Your task to perform on an android device: change notifications settings Image 0: 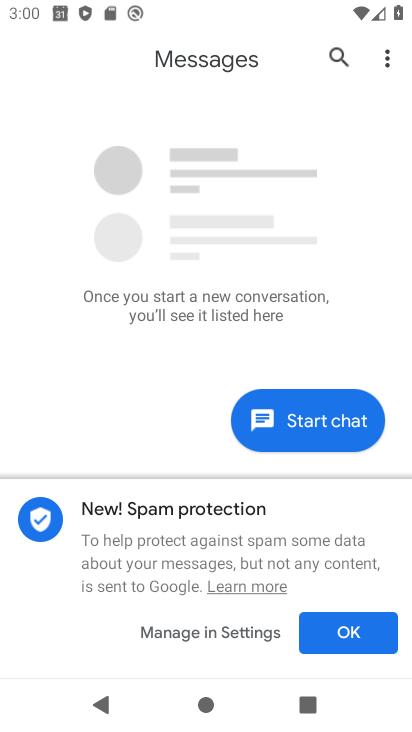
Step 0: press home button
Your task to perform on an android device: change notifications settings Image 1: 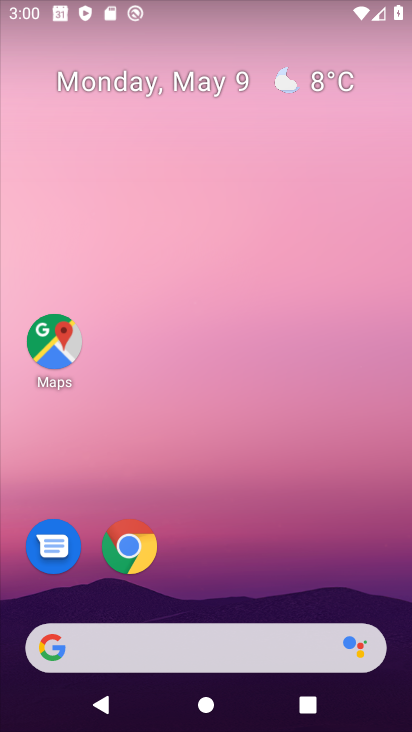
Step 1: drag from (269, 547) to (258, 17)
Your task to perform on an android device: change notifications settings Image 2: 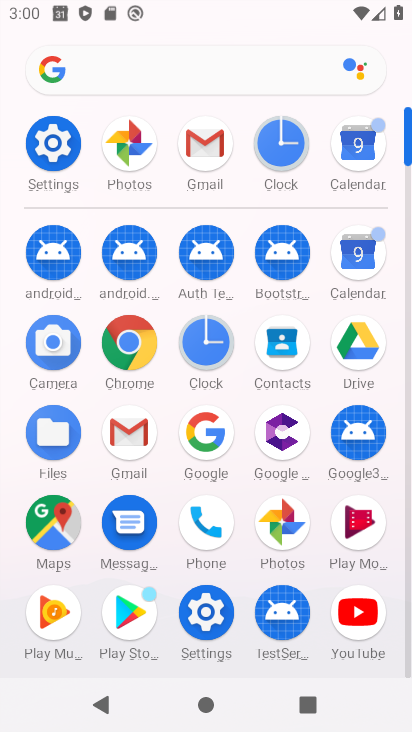
Step 2: click (59, 138)
Your task to perform on an android device: change notifications settings Image 3: 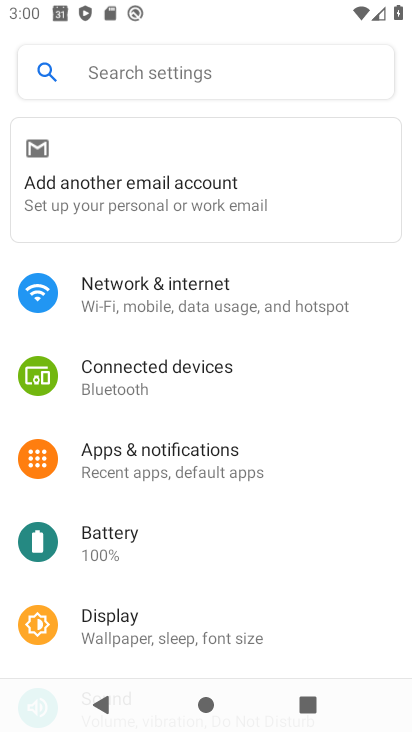
Step 3: click (213, 444)
Your task to perform on an android device: change notifications settings Image 4: 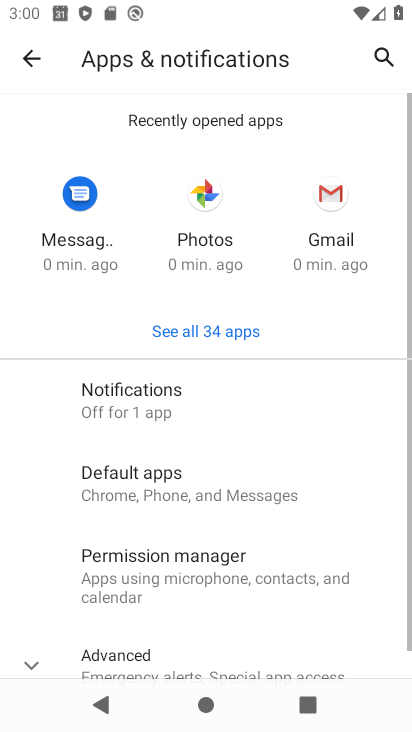
Step 4: click (139, 379)
Your task to perform on an android device: change notifications settings Image 5: 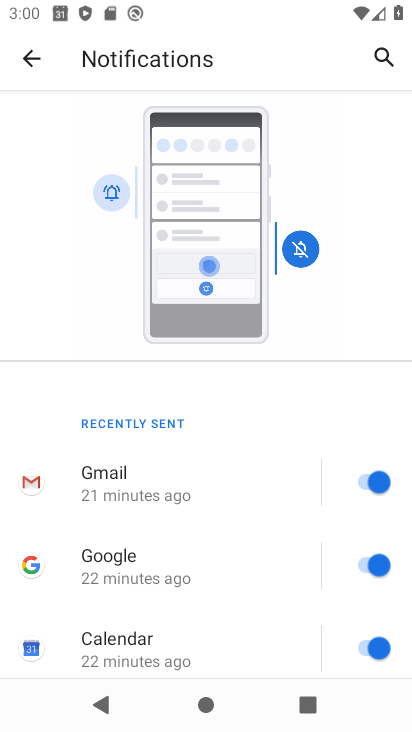
Step 5: drag from (239, 543) to (292, 256)
Your task to perform on an android device: change notifications settings Image 6: 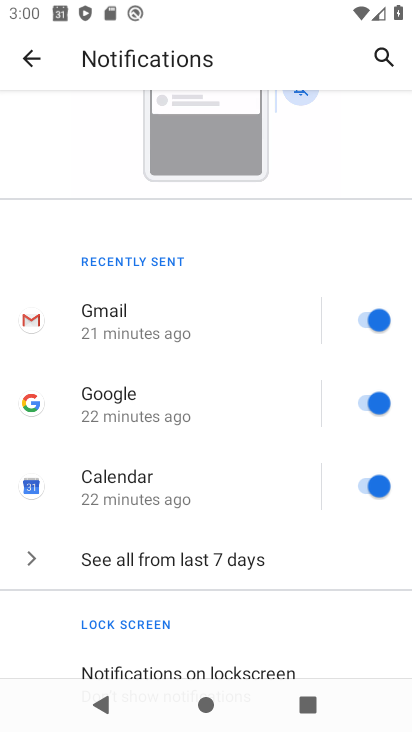
Step 6: click (221, 561)
Your task to perform on an android device: change notifications settings Image 7: 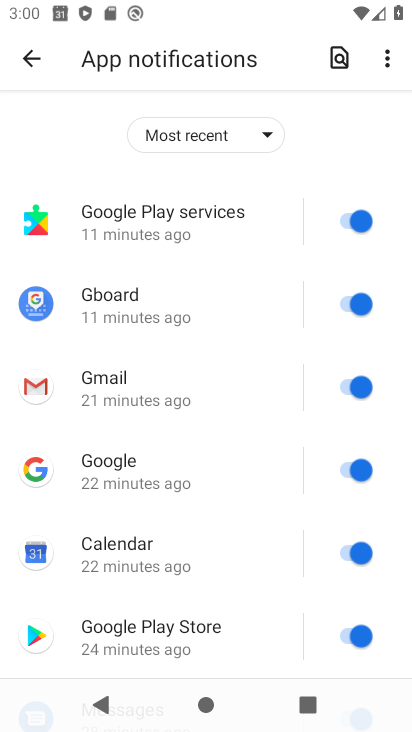
Step 7: click (360, 208)
Your task to perform on an android device: change notifications settings Image 8: 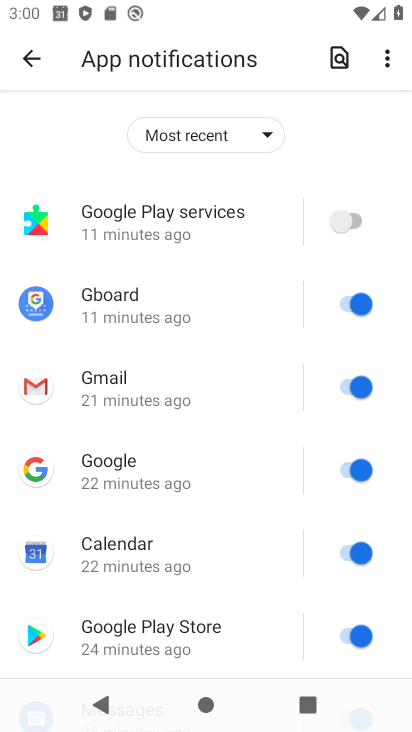
Step 8: click (361, 302)
Your task to perform on an android device: change notifications settings Image 9: 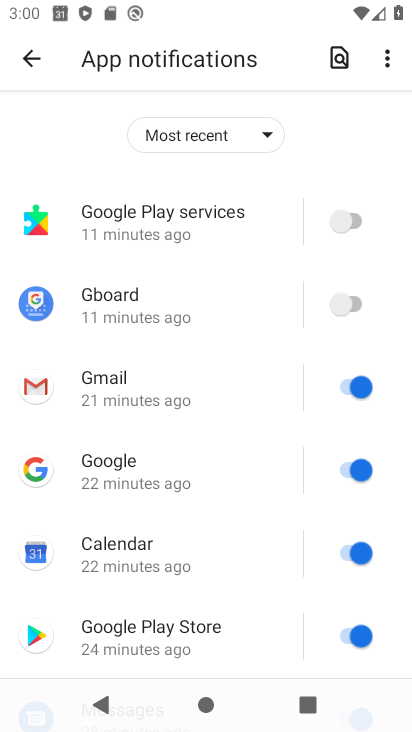
Step 9: click (348, 382)
Your task to perform on an android device: change notifications settings Image 10: 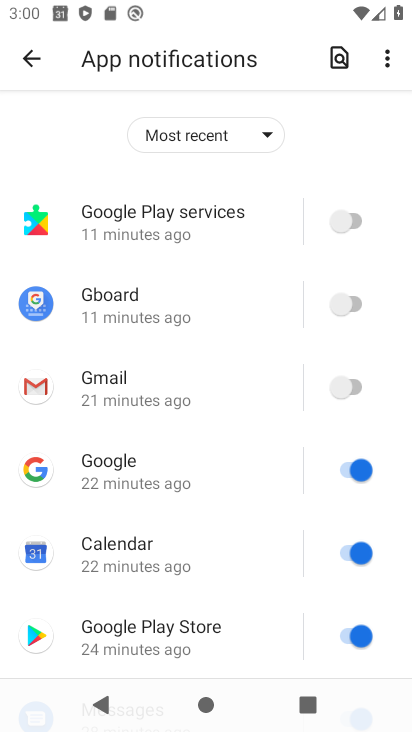
Step 10: click (361, 469)
Your task to perform on an android device: change notifications settings Image 11: 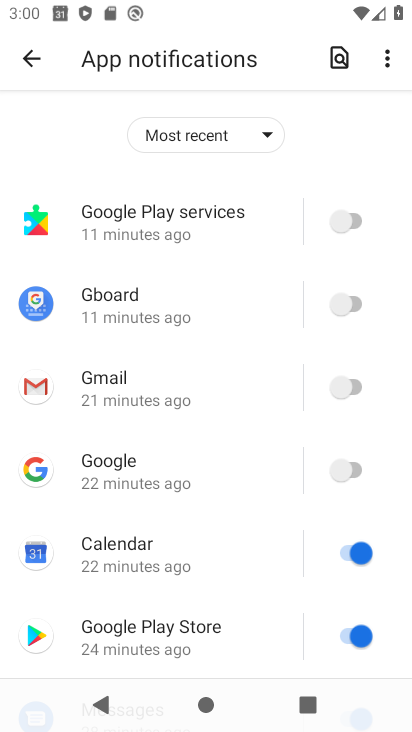
Step 11: click (356, 538)
Your task to perform on an android device: change notifications settings Image 12: 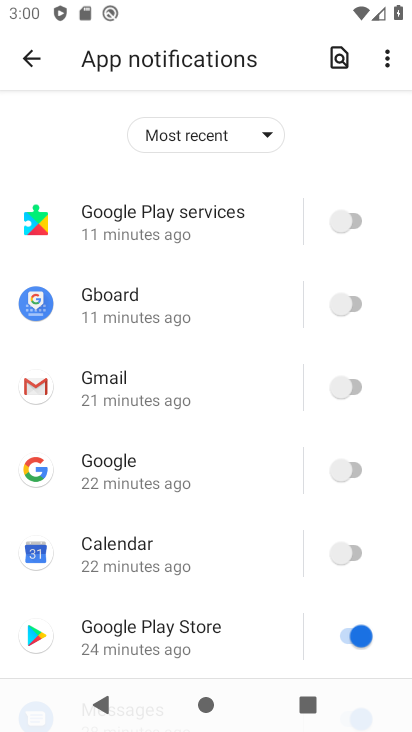
Step 12: drag from (225, 627) to (221, 142)
Your task to perform on an android device: change notifications settings Image 13: 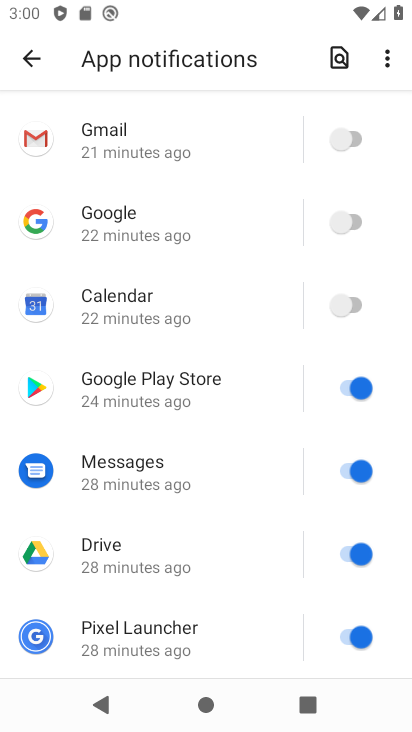
Step 13: click (364, 373)
Your task to perform on an android device: change notifications settings Image 14: 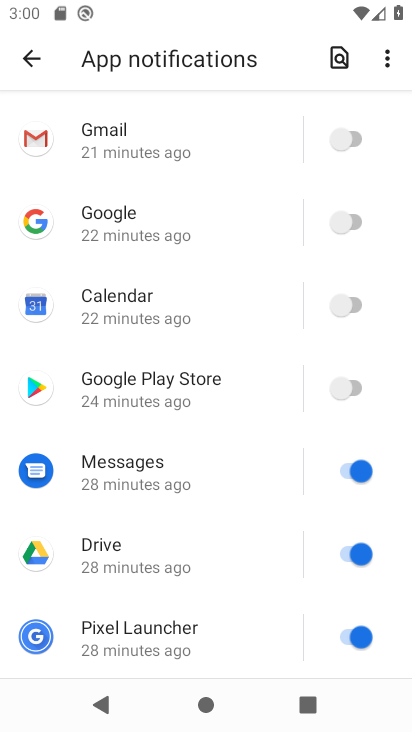
Step 14: click (364, 479)
Your task to perform on an android device: change notifications settings Image 15: 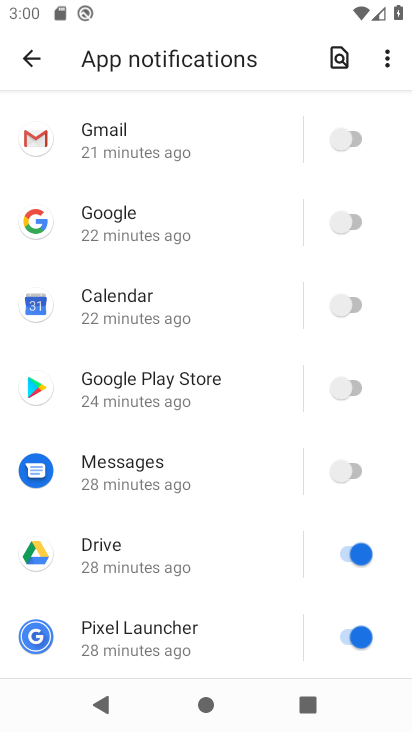
Step 15: click (356, 544)
Your task to perform on an android device: change notifications settings Image 16: 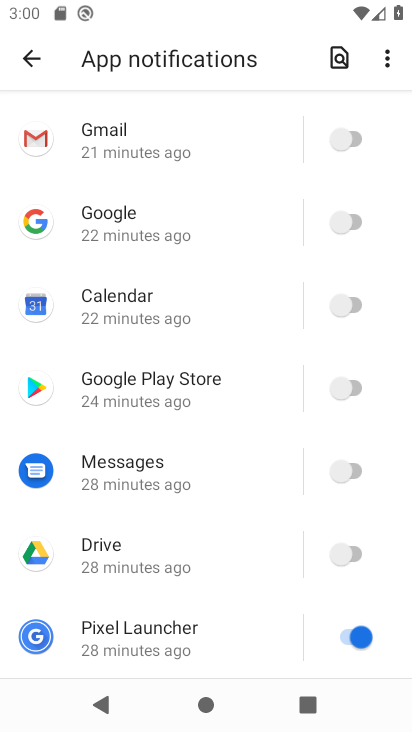
Step 16: click (364, 644)
Your task to perform on an android device: change notifications settings Image 17: 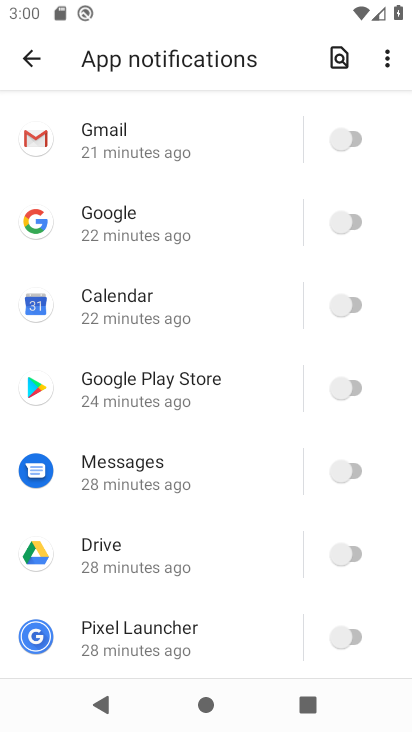
Step 17: task complete